Your task to perform on an android device: turn on showing notifications on the lock screen Image 0: 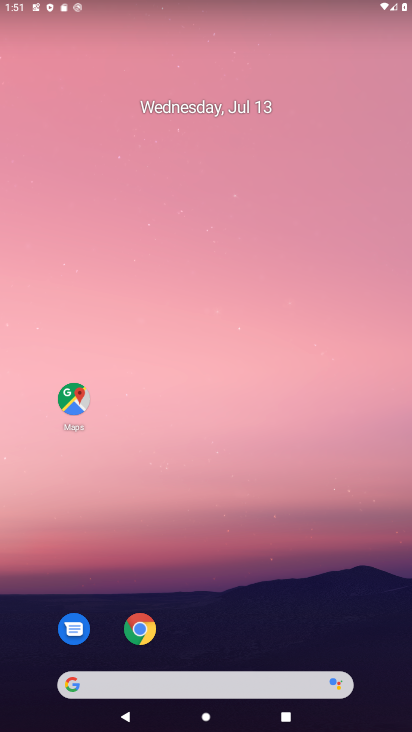
Step 0: drag from (203, 681) to (275, 271)
Your task to perform on an android device: turn on showing notifications on the lock screen Image 1: 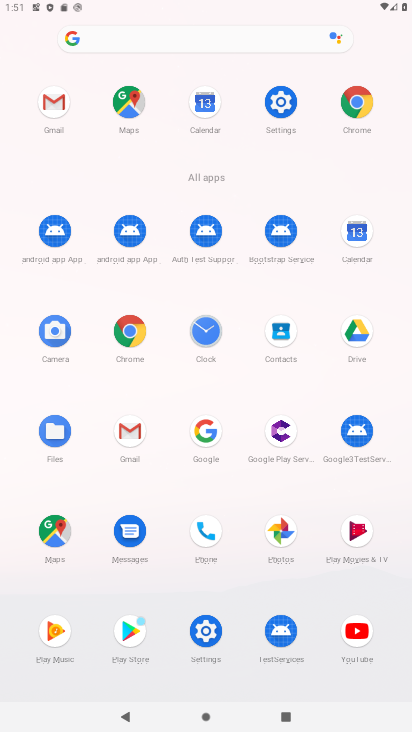
Step 1: click (281, 103)
Your task to perform on an android device: turn on showing notifications on the lock screen Image 2: 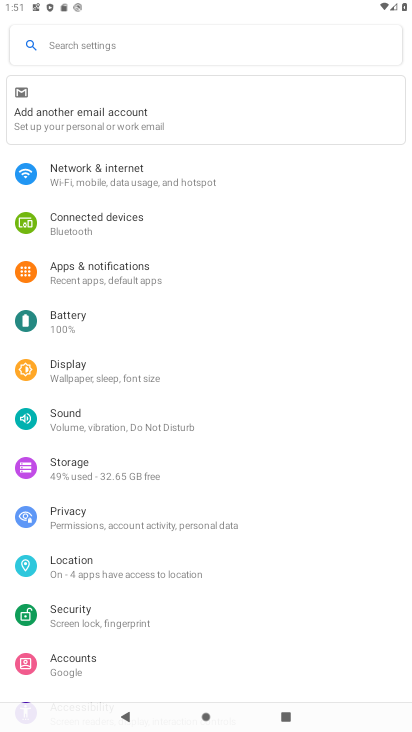
Step 2: click (109, 276)
Your task to perform on an android device: turn on showing notifications on the lock screen Image 3: 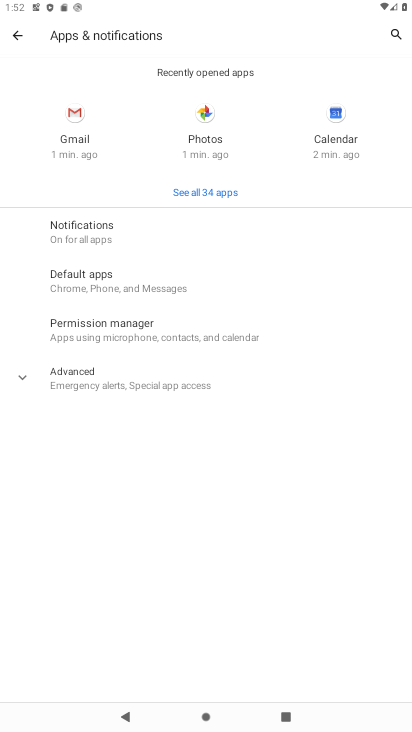
Step 3: click (79, 224)
Your task to perform on an android device: turn on showing notifications on the lock screen Image 4: 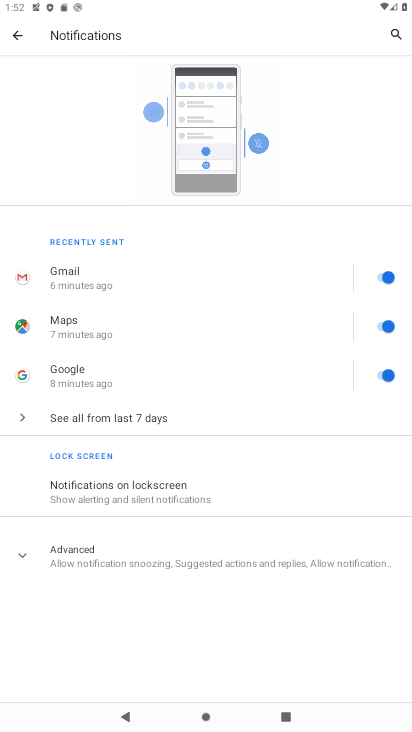
Step 4: click (116, 484)
Your task to perform on an android device: turn on showing notifications on the lock screen Image 5: 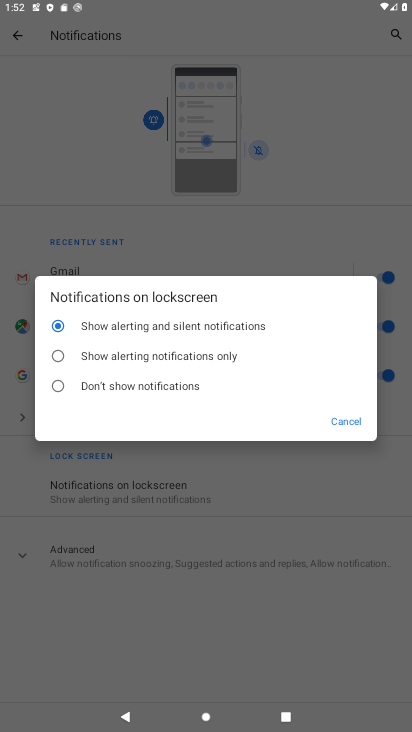
Step 5: click (55, 318)
Your task to perform on an android device: turn on showing notifications on the lock screen Image 6: 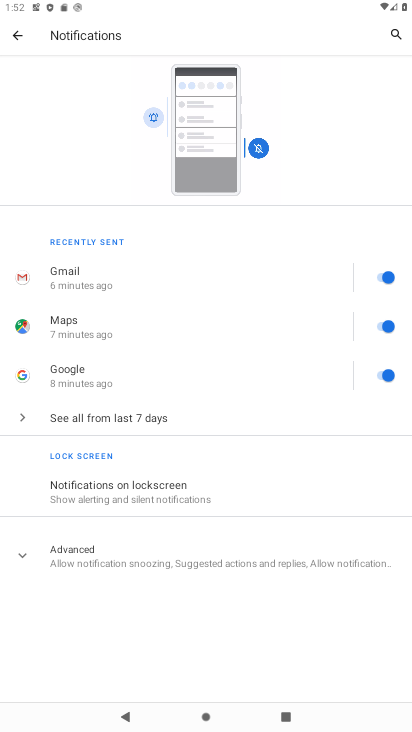
Step 6: task complete